Your task to perform on an android device: turn on notifications settings in the gmail app Image 0: 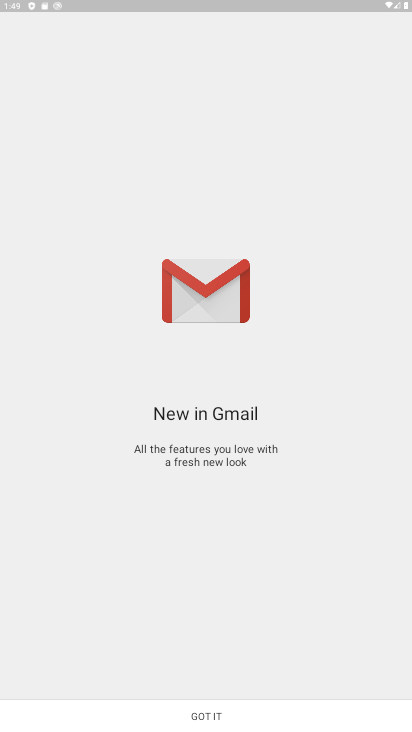
Step 0: click (208, 713)
Your task to perform on an android device: turn on notifications settings in the gmail app Image 1: 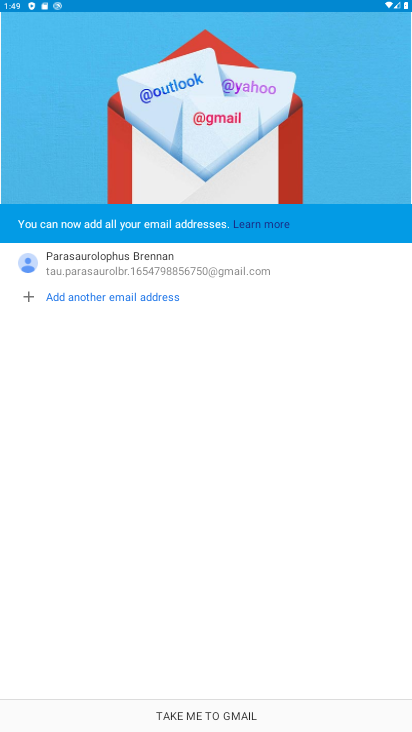
Step 1: click (201, 713)
Your task to perform on an android device: turn on notifications settings in the gmail app Image 2: 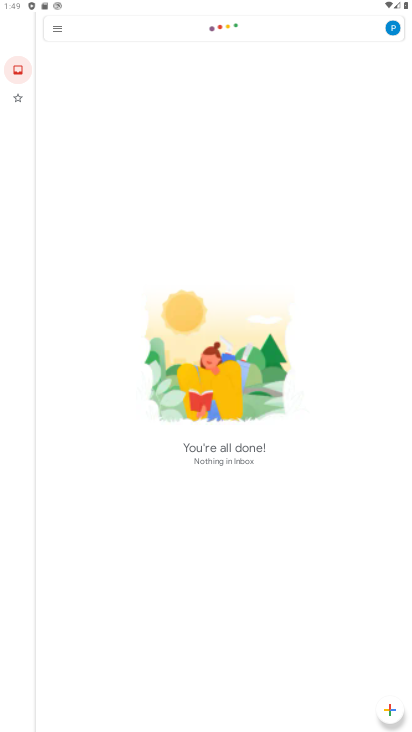
Step 2: click (58, 34)
Your task to perform on an android device: turn on notifications settings in the gmail app Image 3: 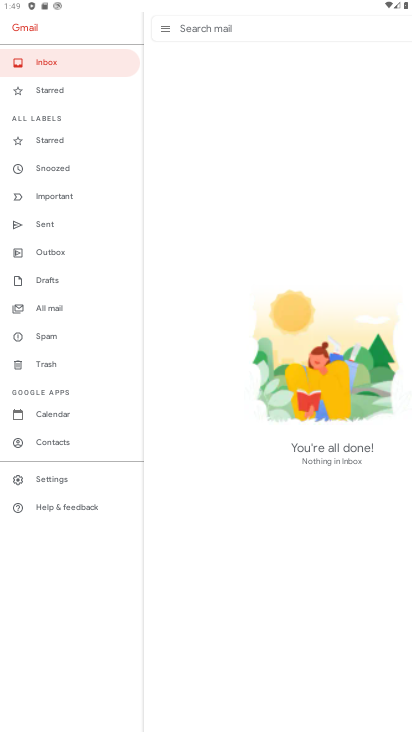
Step 3: click (55, 477)
Your task to perform on an android device: turn on notifications settings in the gmail app Image 4: 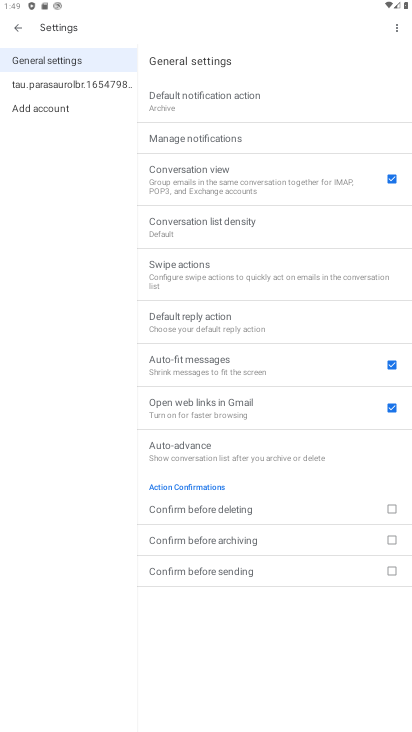
Step 4: click (83, 82)
Your task to perform on an android device: turn on notifications settings in the gmail app Image 5: 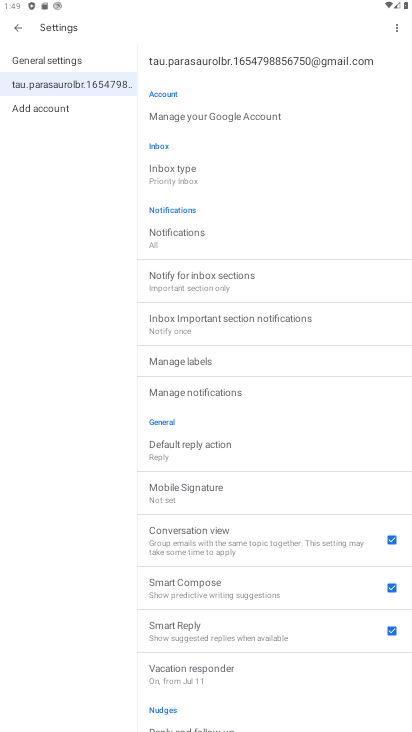
Step 5: click (191, 236)
Your task to perform on an android device: turn on notifications settings in the gmail app Image 6: 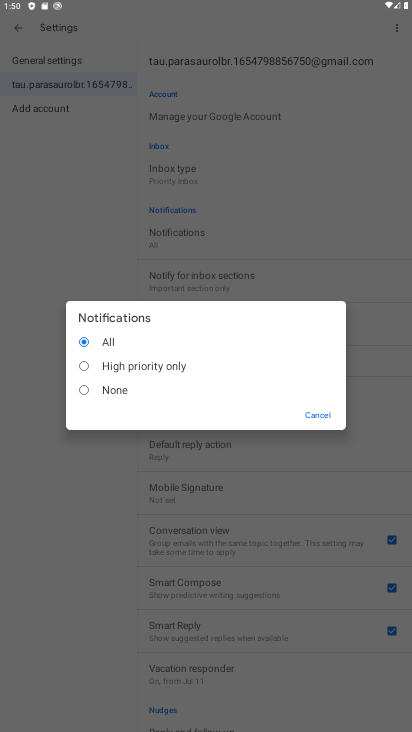
Step 6: task complete